Your task to perform on an android device: Open ESPN.com Image 0: 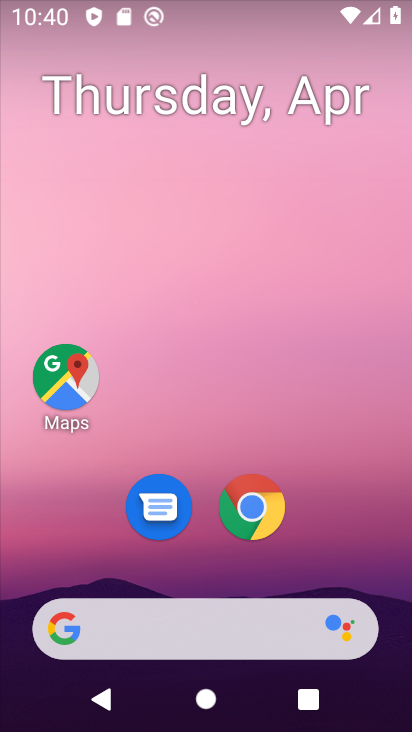
Step 0: click (266, 515)
Your task to perform on an android device: Open ESPN.com Image 1: 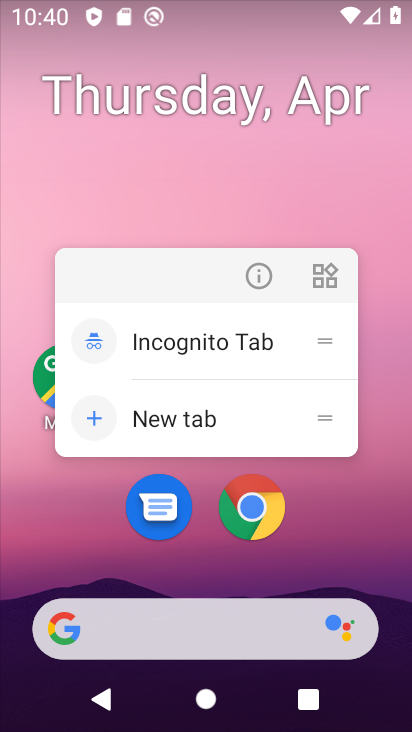
Step 1: click (259, 508)
Your task to perform on an android device: Open ESPN.com Image 2: 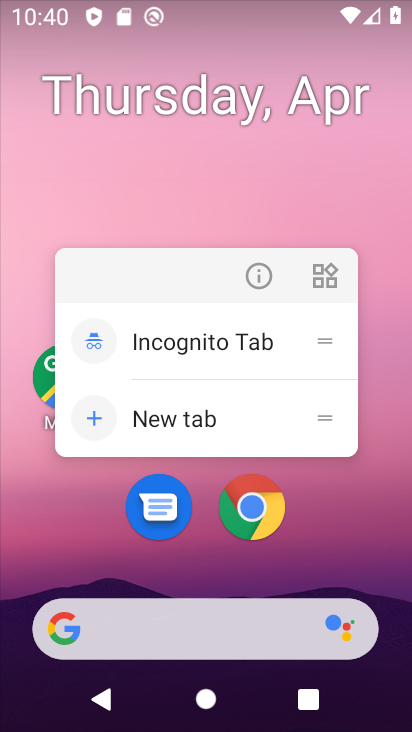
Step 2: click (259, 525)
Your task to perform on an android device: Open ESPN.com Image 3: 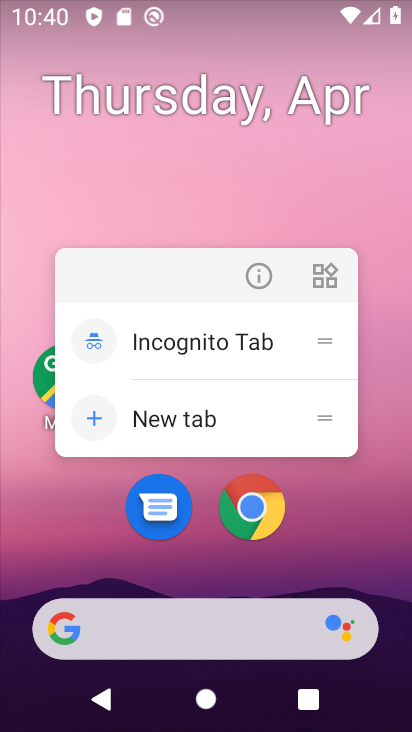
Step 3: click (259, 526)
Your task to perform on an android device: Open ESPN.com Image 4: 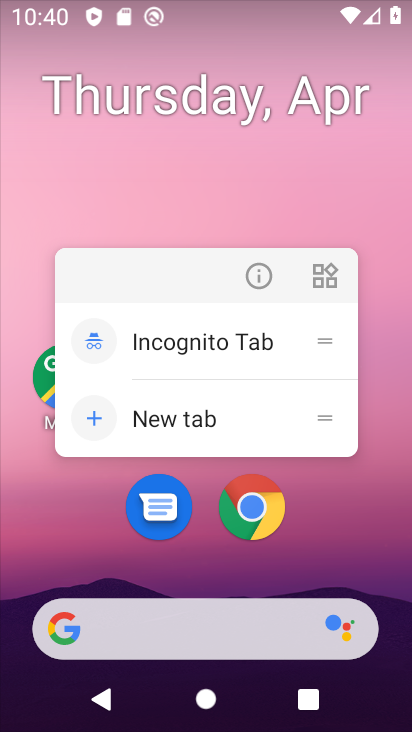
Step 4: click (258, 513)
Your task to perform on an android device: Open ESPN.com Image 5: 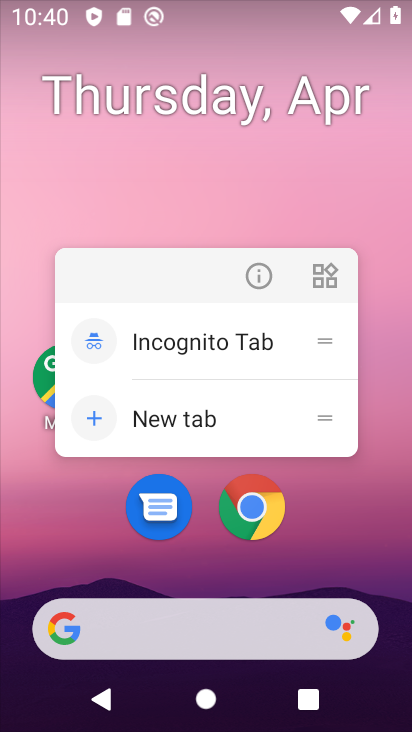
Step 5: click (239, 494)
Your task to perform on an android device: Open ESPN.com Image 6: 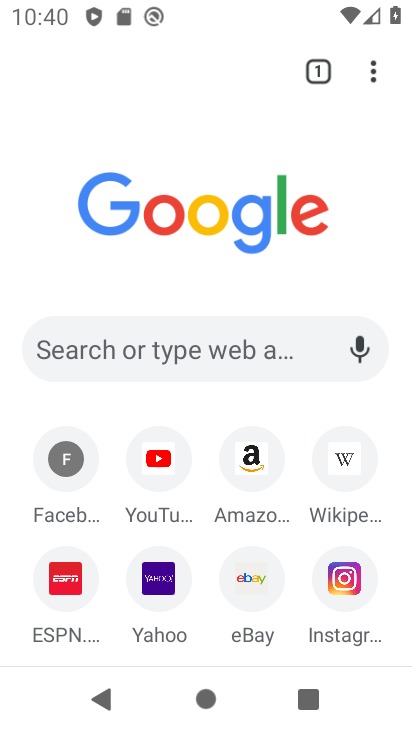
Step 6: click (59, 585)
Your task to perform on an android device: Open ESPN.com Image 7: 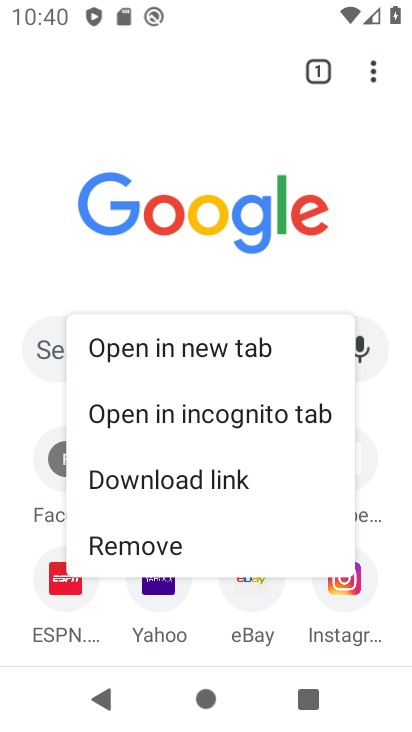
Step 7: click (59, 591)
Your task to perform on an android device: Open ESPN.com Image 8: 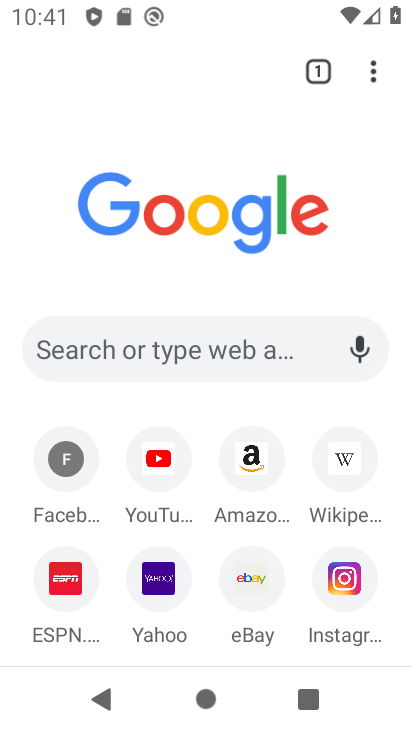
Step 8: click (77, 577)
Your task to perform on an android device: Open ESPN.com Image 9: 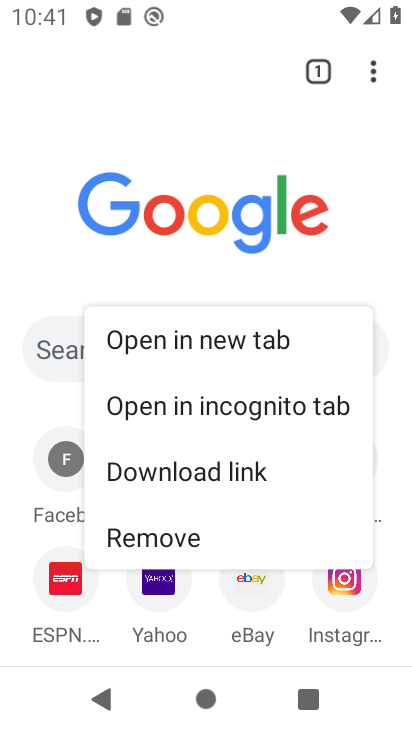
Step 9: click (56, 562)
Your task to perform on an android device: Open ESPN.com Image 10: 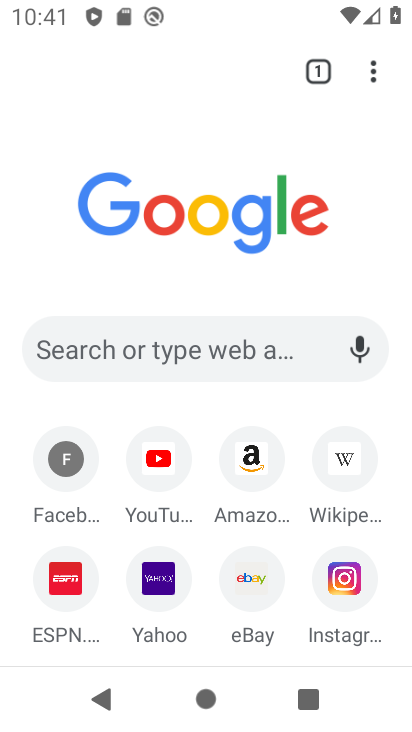
Step 10: click (86, 576)
Your task to perform on an android device: Open ESPN.com Image 11: 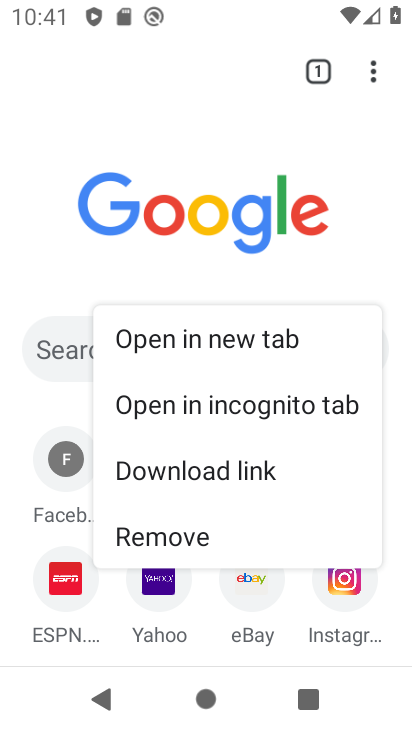
Step 11: click (73, 573)
Your task to perform on an android device: Open ESPN.com Image 12: 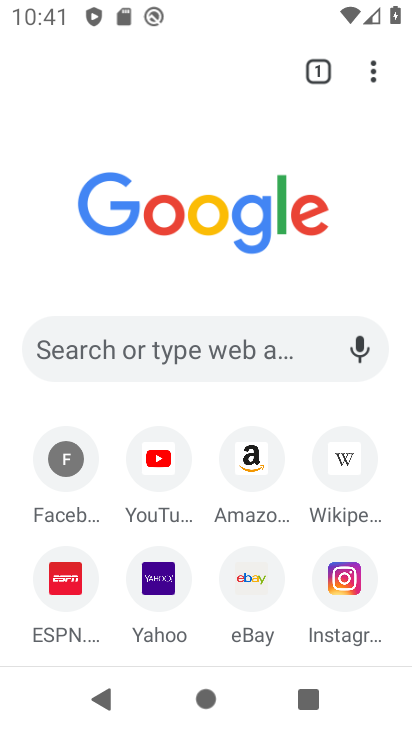
Step 12: click (71, 575)
Your task to perform on an android device: Open ESPN.com Image 13: 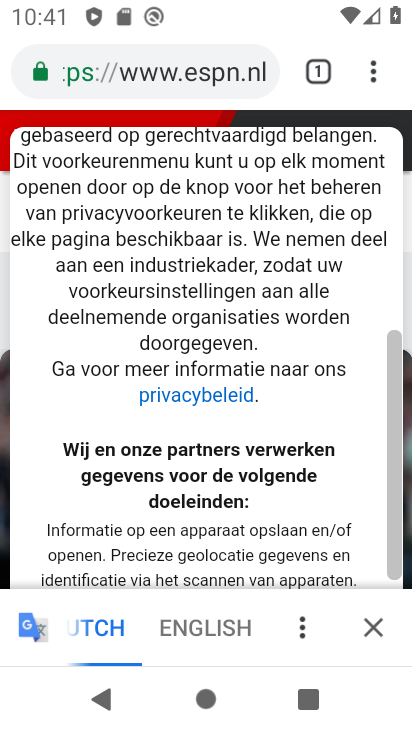
Step 13: click (231, 646)
Your task to perform on an android device: Open ESPN.com Image 14: 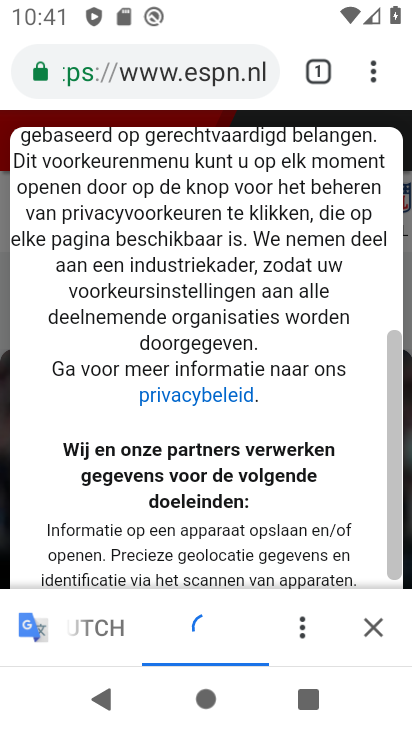
Step 14: drag from (161, 540) to (386, 79)
Your task to perform on an android device: Open ESPN.com Image 15: 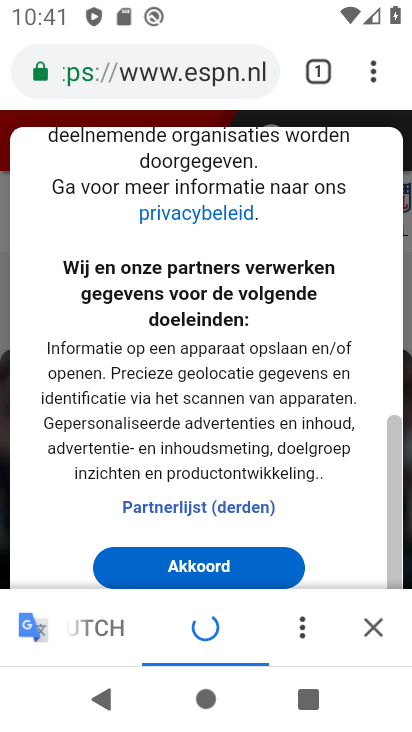
Step 15: click (206, 562)
Your task to perform on an android device: Open ESPN.com Image 16: 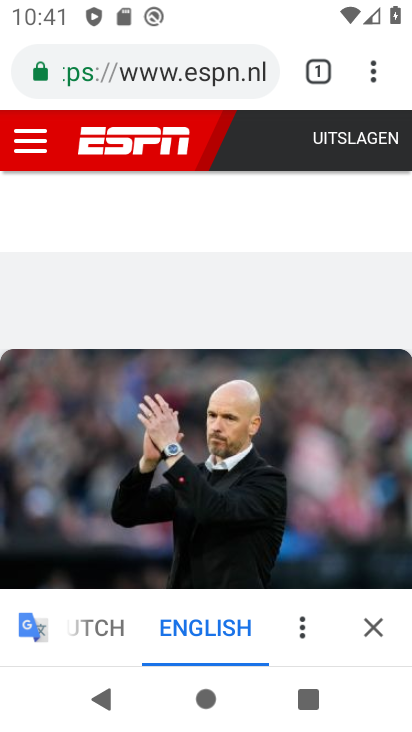
Step 16: task complete